Your task to perform on an android device: Open Youtube and go to the subscriptions tab Image 0: 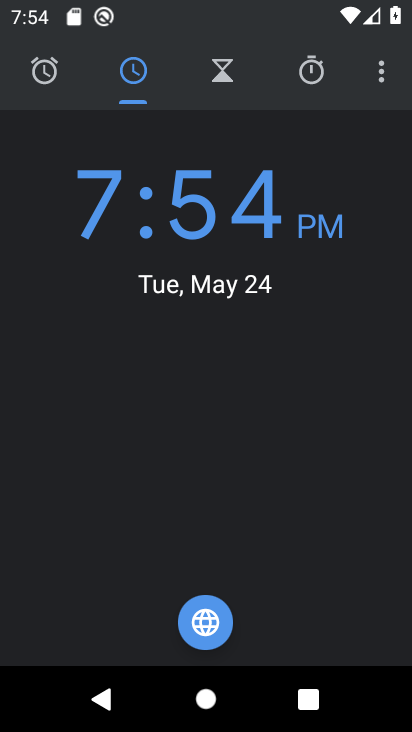
Step 0: press home button
Your task to perform on an android device: Open Youtube and go to the subscriptions tab Image 1: 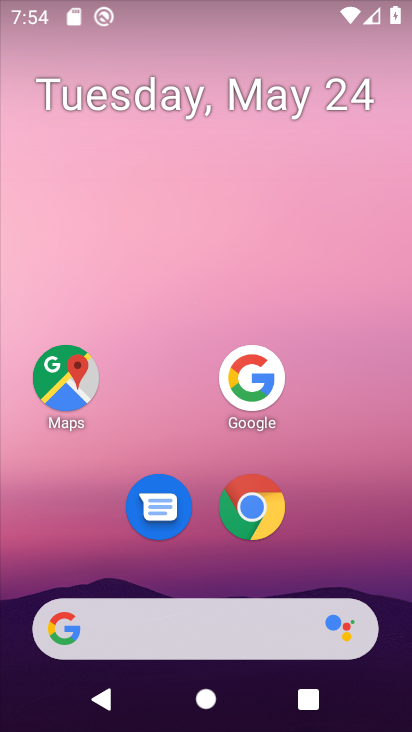
Step 1: drag from (182, 635) to (322, 221)
Your task to perform on an android device: Open Youtube and go to the subscriptions tab Image 2: 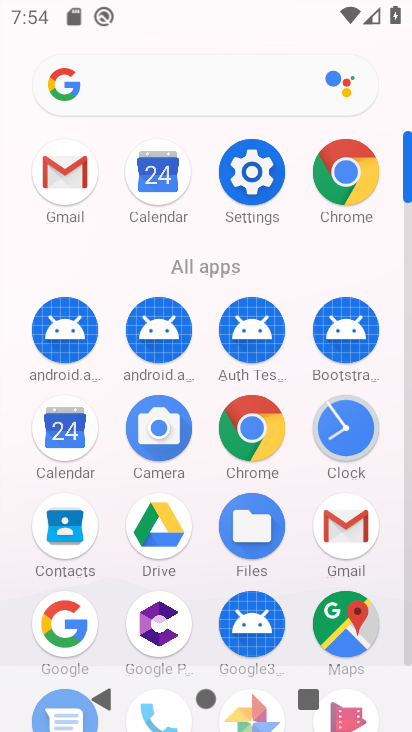
Step 2: drag from (191, 578) to (352, 133)
Your task to perform on an android device: Open Youtube and go to the subscriptions tab Image 3: 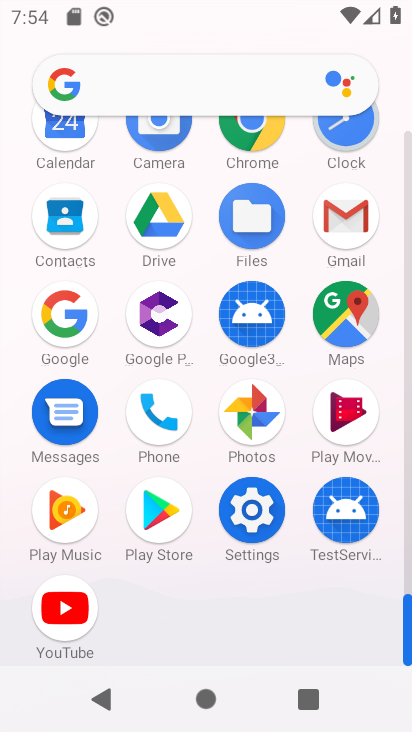
Step 3: click (64, 618)
Your task to perform on an android device: Open Youtube and go to the subscriptions tab Image 4: 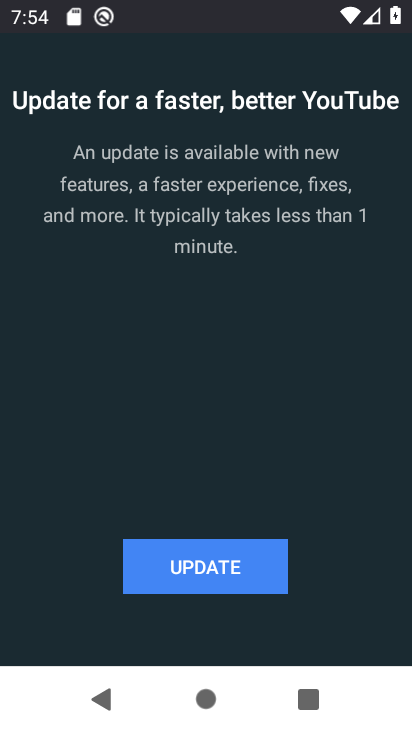
Step 4: click (182, 573)
Your task to perform on an android device: Open Youtube and go to the subscriptions tab Image 5: 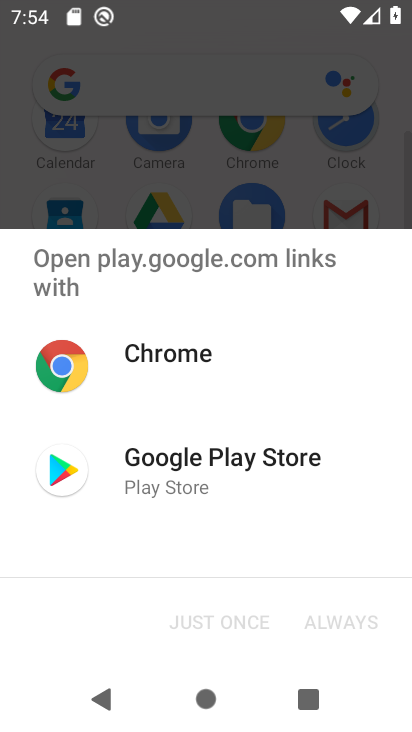
Step 5: click (149, 467)
Your task to perform on an android device: Open Youtube and go to the subscriptions tab Image 6: 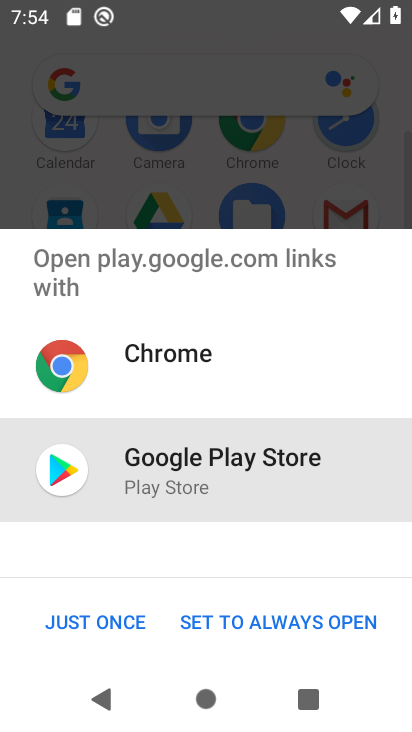
Step 6: click (81, 617)
Your task to perform on an android device: Open Youtube and go to the subscriptions tab Image 7: 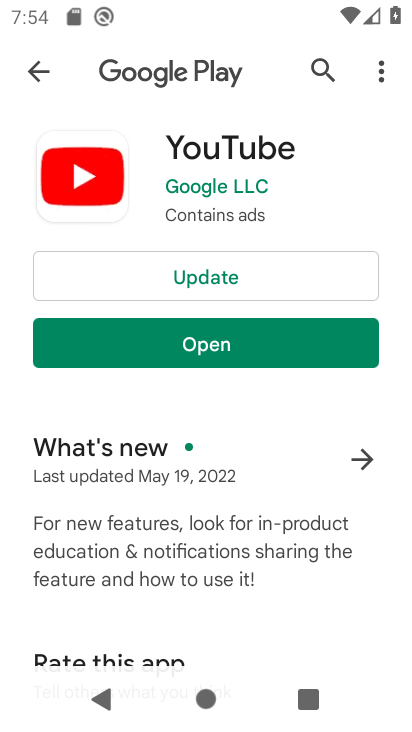
Step 7: click (215, 270)
Your task to perform on an android device: Open Youtube and go to the subscriptions tab Image 8: 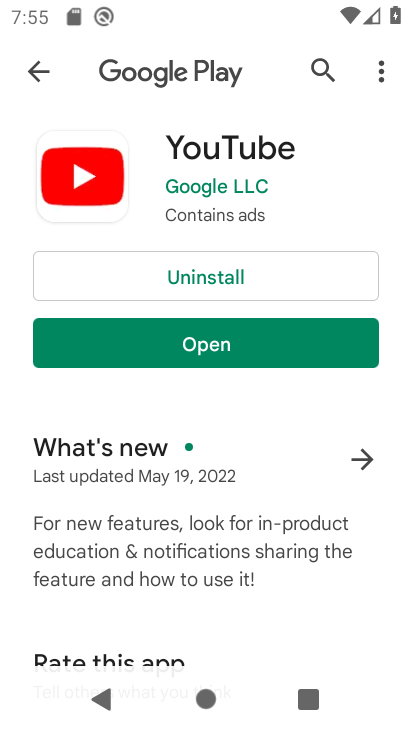
Step 8: click (195, 343)
Your task to perform on an android device: Open Youtube and go to the subscriptions tab Image 9: 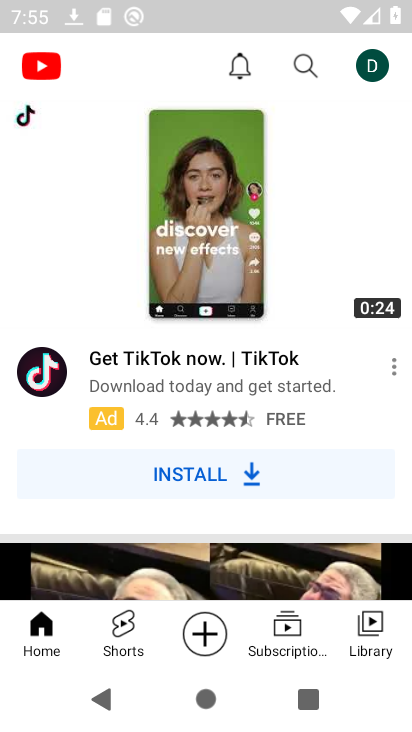
Step 9: click (272, 638)
Your task to perform on an android device: Open Youtube and go to the subscriptions tab Image 10: 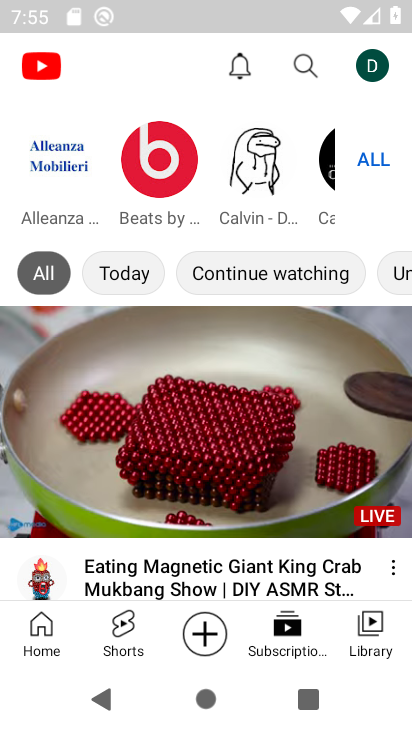
Step 10: task complete